Your task to perform on an android device: check the backup settings in the google photos Image 0: 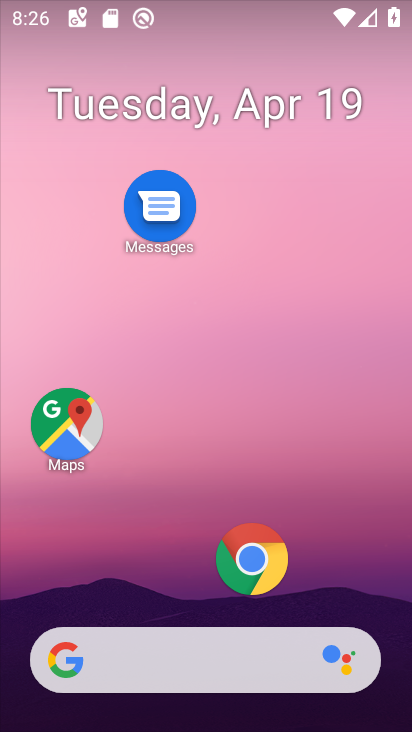
Step 0: drag from (219, 631) to (161, 337)
Your task to perform on an android device: check the backup settings in the google photos Image 1: 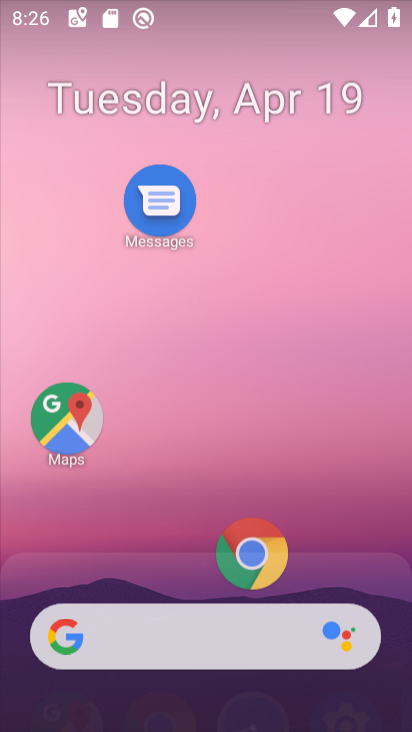
Step 1: drag from (244, 665) to (153, 183)
Your task to perform on an android device: check the backup settings in the google photos Image 2: 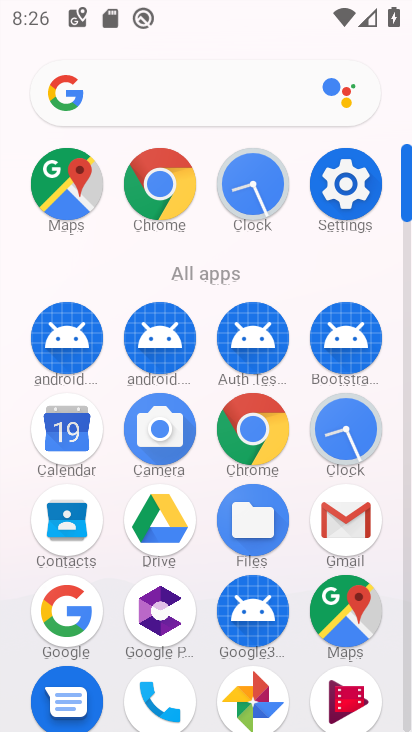
Step 2: click (248, 689)
Your task to perform on an android device: check the backup settings in the google photos Image 3: 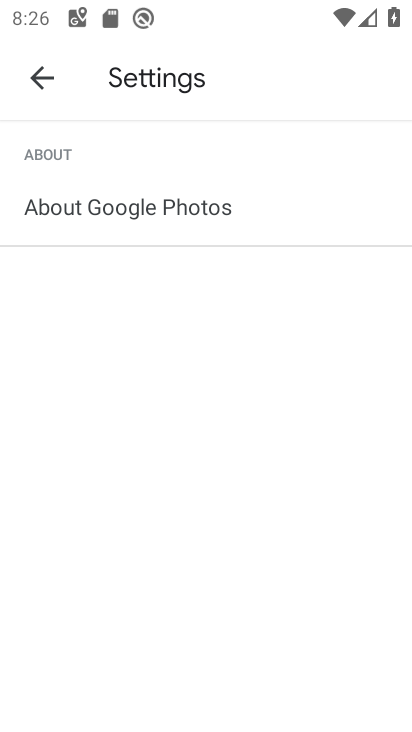
Step 3: click (46, 83)
Your task to perform on an android device: check the backup settings in the google photos Image 4: 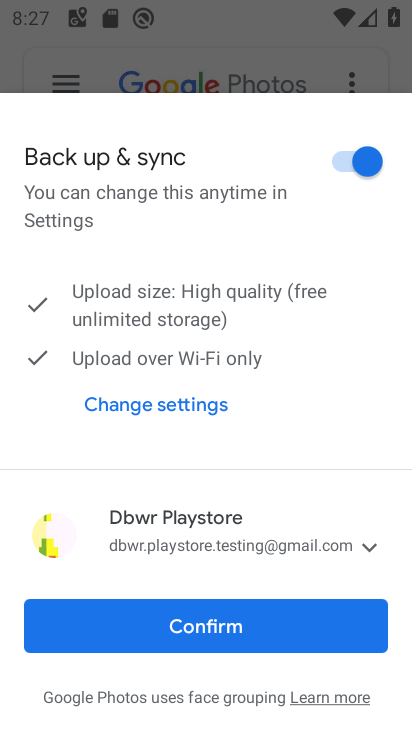
Step 4: click (223, 649)
Your task to perform on an android device: check the backup settings in the google photos Image 5: 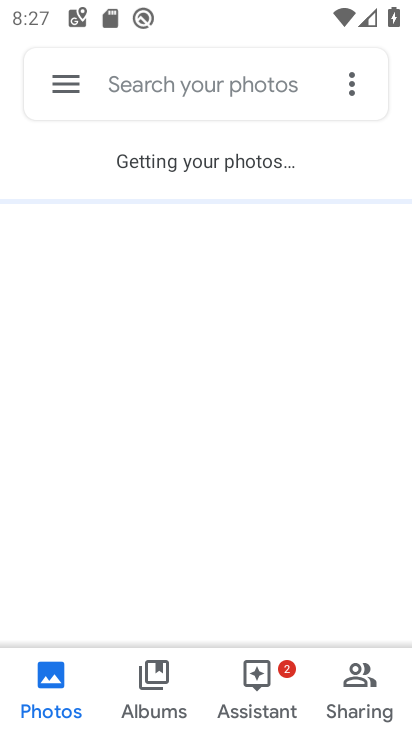
Step 5: click (71, 83)
Your task to perform on an android device: check the backup settings in the google photos Image 6: 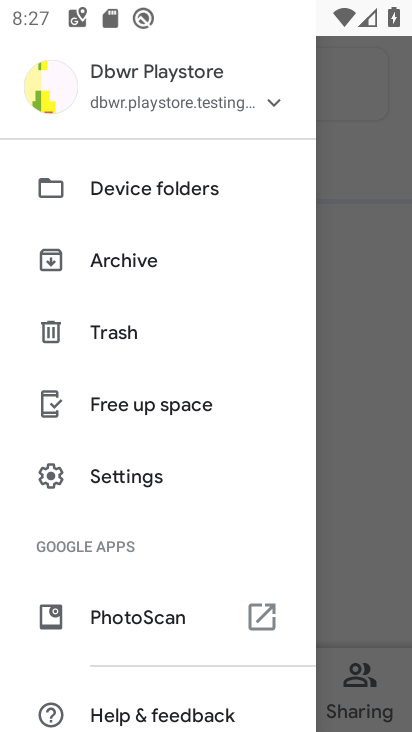
Step 6: click (98, 487)
Your task to perform on an android device: check the backup settings in the google photos Image 7: 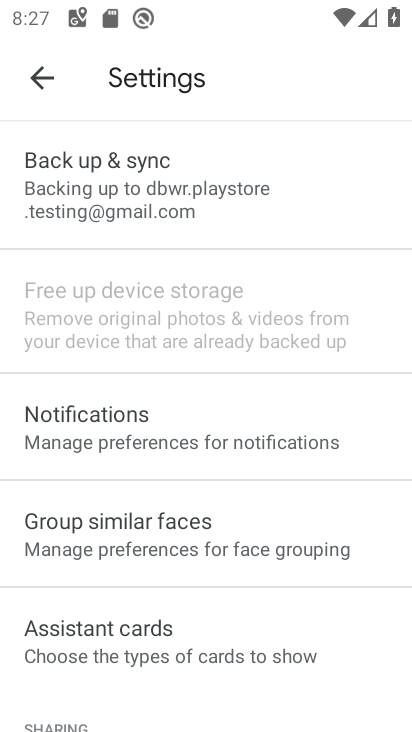
Step 7: click (93, 190)
Your task to perform on an android device: check the backup settings in the google photos Image 8: 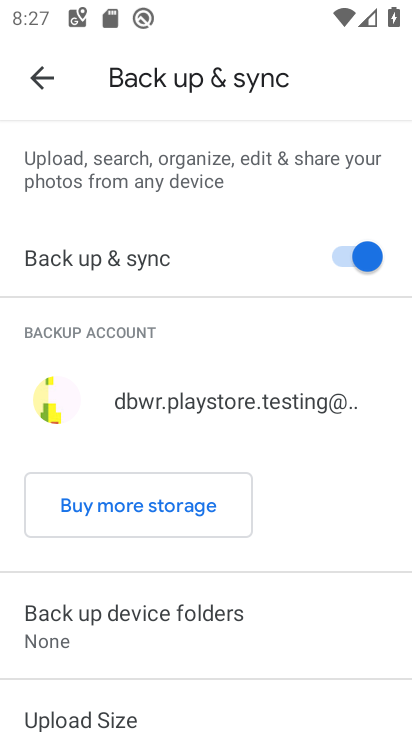
Step 8: task complete